Your task to perform on an android device: toggle airplane mode Image 0: 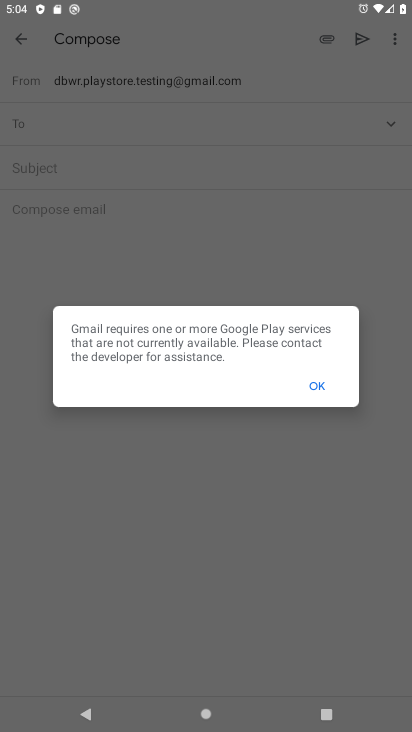
Step 0: click (268, 360)
Your task to perform on an android device: toggle airplane mode Image 1: 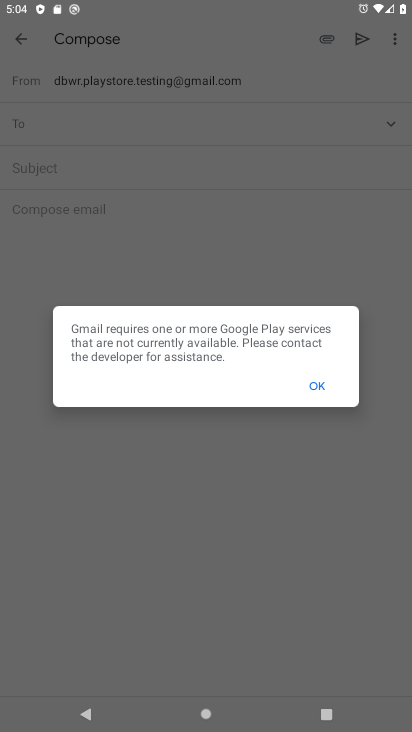
Step 1: click (320, 390)
Your task to perform on an android device: toggle airplane mode Image 2: 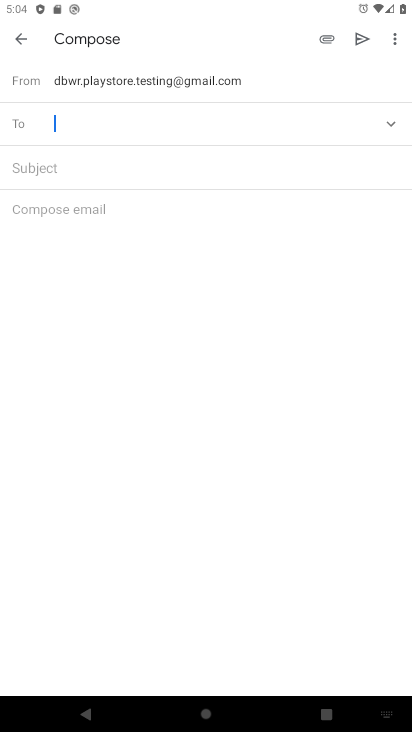
Step 2: click (205, 721)
Your task to perform on an android device: toggle airplane mode Image 3: 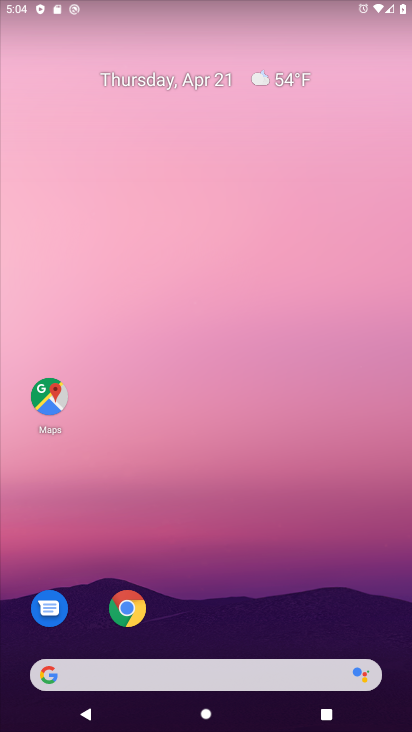
Step 3: click (205, 721)
Your task to perform on an android device: toggle airplane mode Image 4: 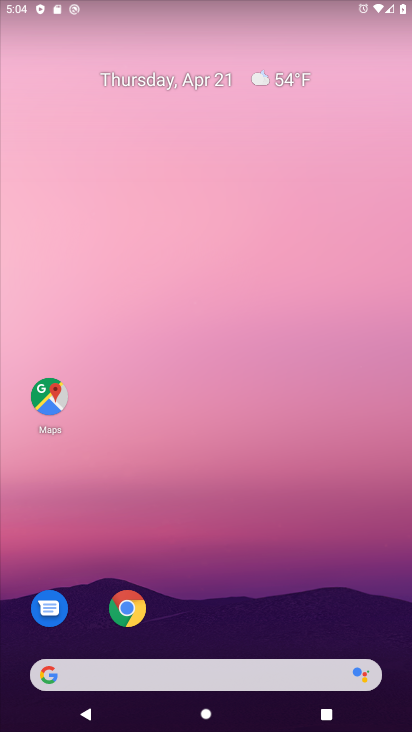
Step 4: drag from (262, 34) to (183, 310)
Your task to perform on an android device: toggle airplane mode Image 5: 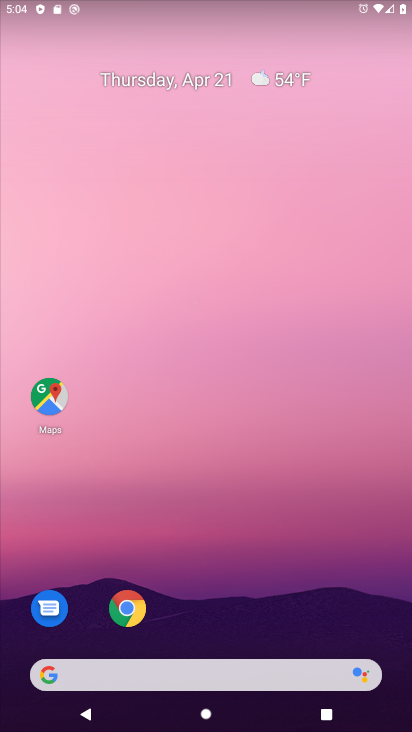
Step 5: drag from (217, 609) to (222, 196)
Your task to perform on an android device: toggle airplane mode Image 6: 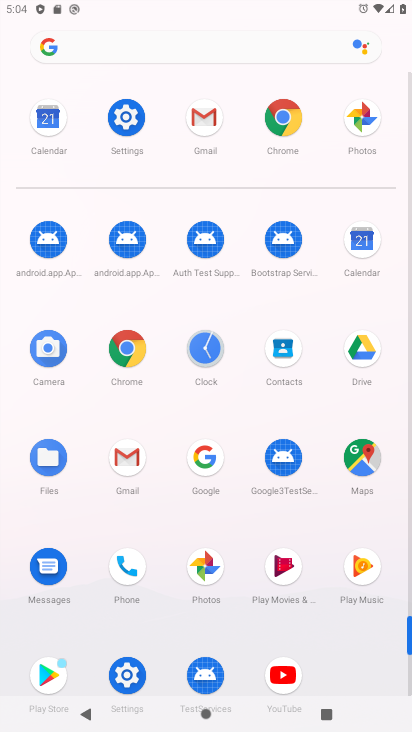
Step 6: click (129, 124)
Your task to perform on an android device: toggle airplane mode Image 7: 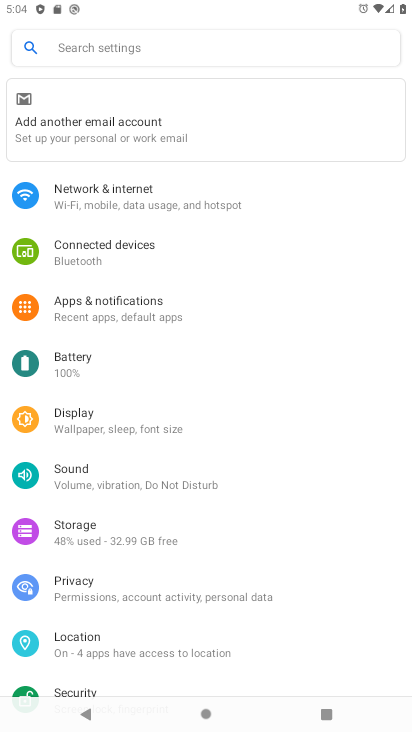
Step 7: click (132, 202)
Your task to perform on an android device: toggle airplane mode Image 8: 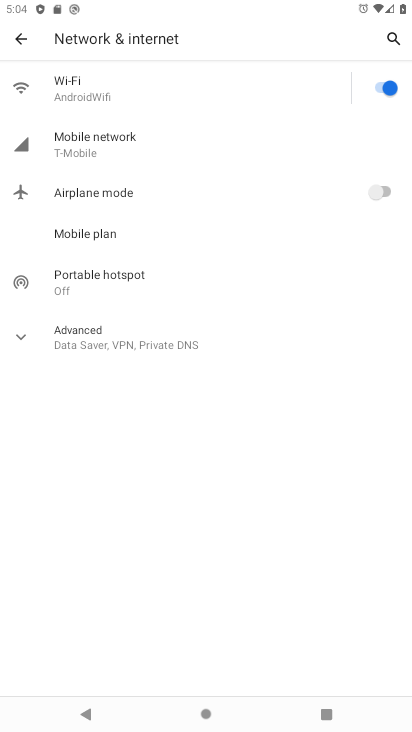
Step 8: click (107, 197)
Your task to perform on an android device: toggle airplane mode Image 9: 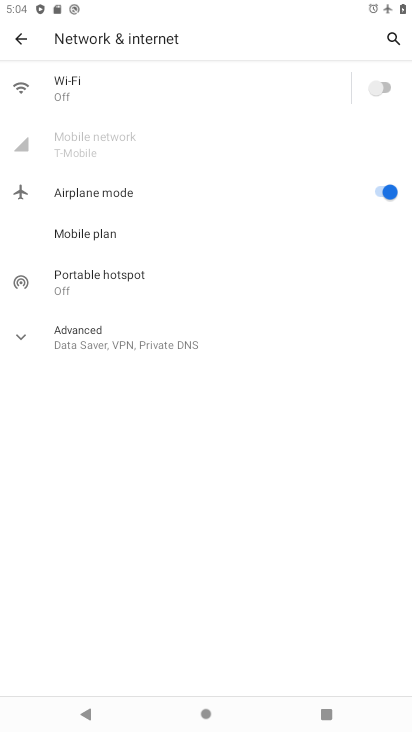
Step 9: task complete